Your task to perform on an android device: What is the recent news? Image 0: 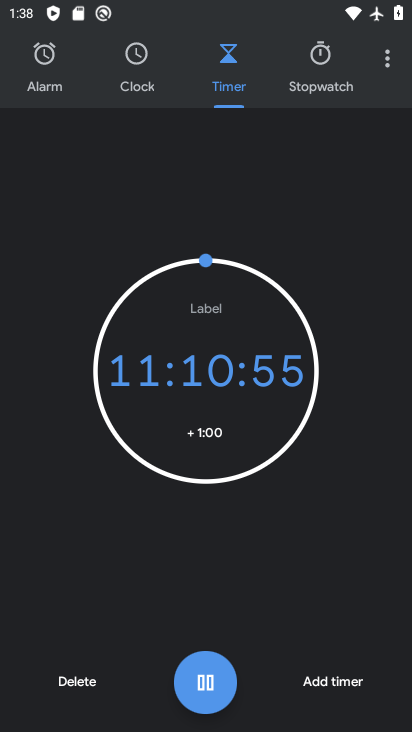
Step 0: press home button
Your task to perform on an android device: What is the recent news? Image 1: 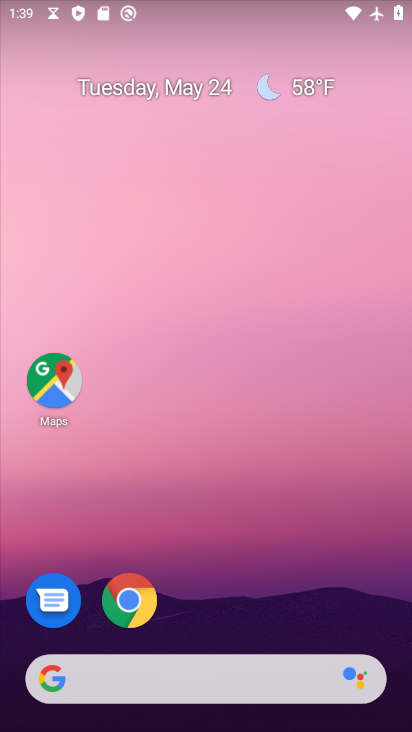
Step 1: drag from (283, 544) to (181, 20)
Your task to perform on an android device: What is the recent news? Image 2: 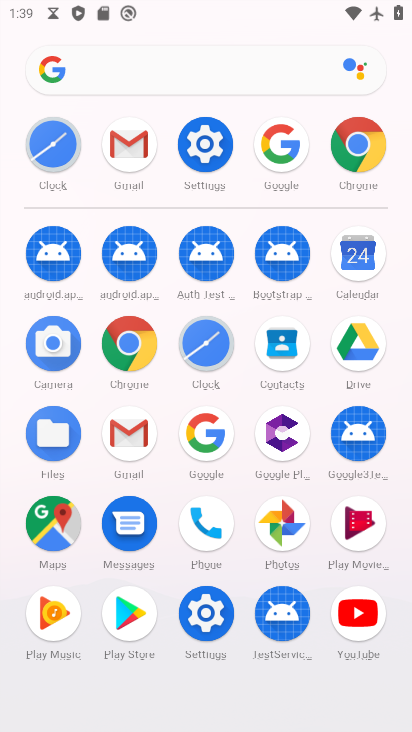
Step 2: click (208, 435)
Your task to perform on an android device: What is the recent news? Image 3: 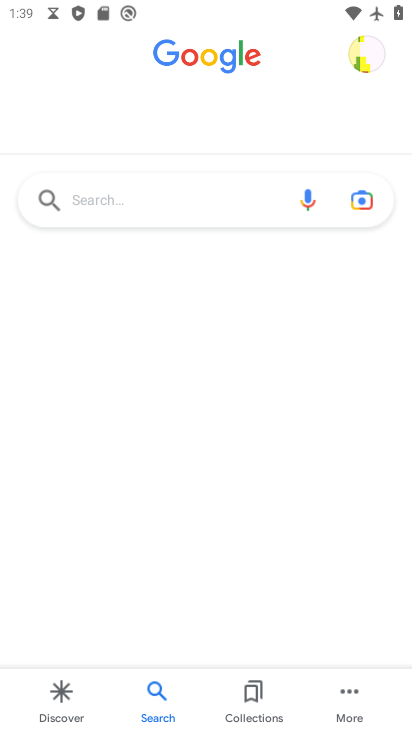
Step 3: click (123, 199)
Your task to perform on an android device: What is the recent news? Image 4: 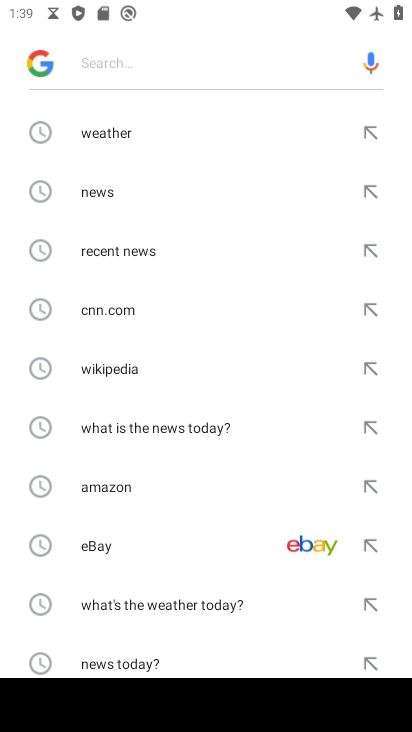
Step 4: click (160, 248)
Your task to perform on an android device: What is the recent news? Image 5: 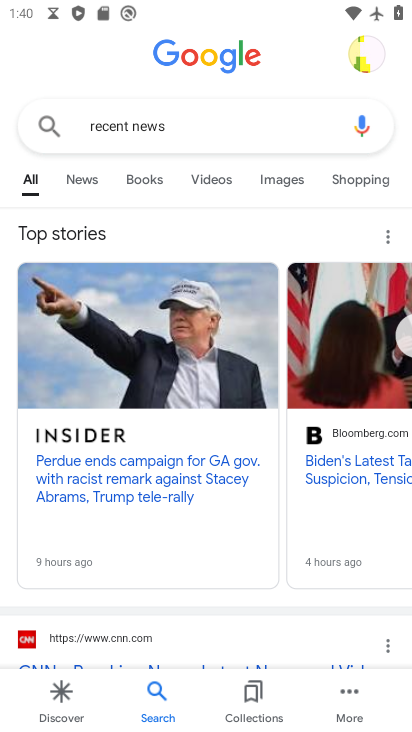
Step 5: task complete